Your task to perform on an android device: Search for Italian restaurants on Maps Image 0: 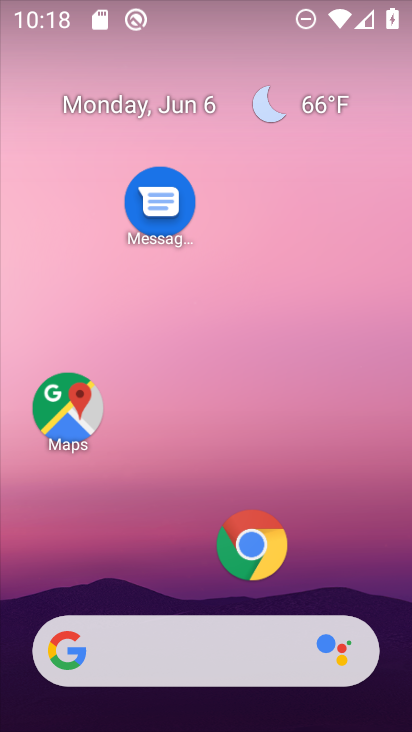
Step 0: drag from (140, 556) to (208, 120)
Your task to perform on an android device: Search for Italian restaurants on Maps Image 1: 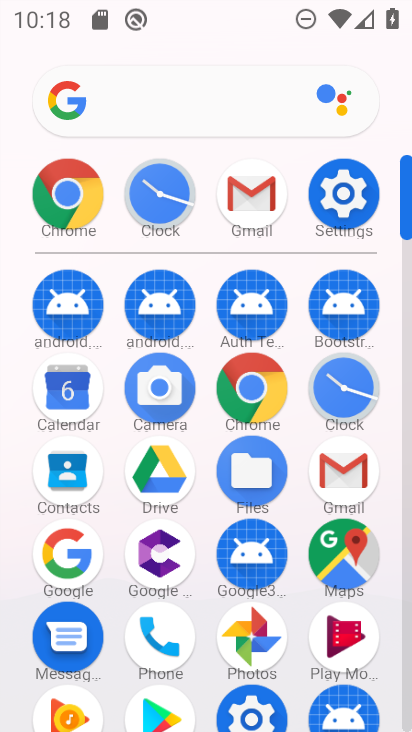
Step 1: click (331, 549)
Your task to perform on an android device: Search for Italian restaurants on Maps Image 2: 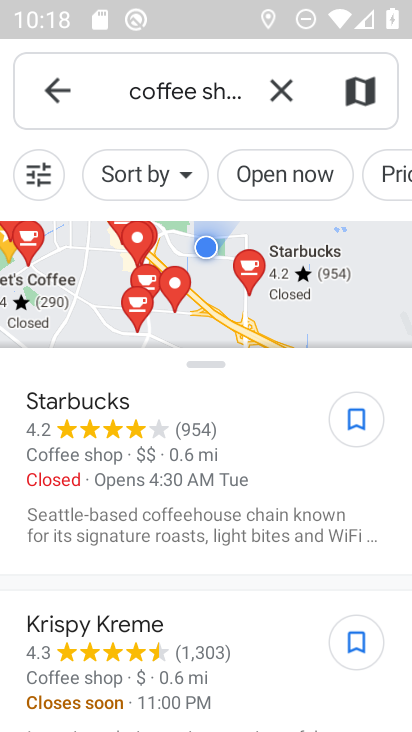
Step 2: click (278, 95)
Your task to perform on an android device: Search for Italian restaurants on Maps Image 3: 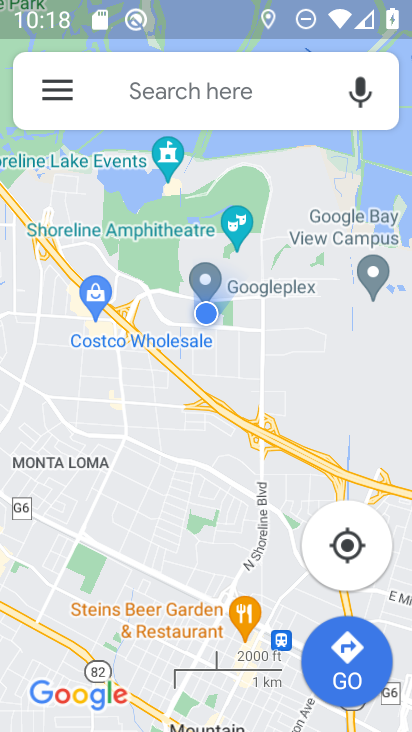
Step 3: click (188, 100)
Your task to perform on an android device: Search for Italian restaurants on Maps Image 4: 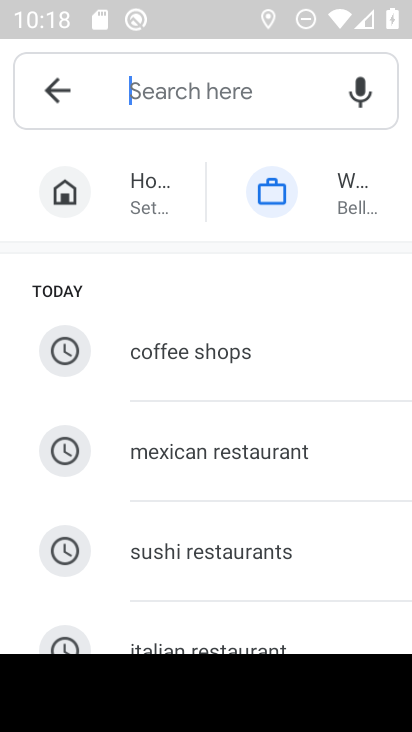
Step 4: type "Italian restaurants Italian restaurants "
Your task to perform on an android device: Search for Italian restaurants on Maps Image 5: 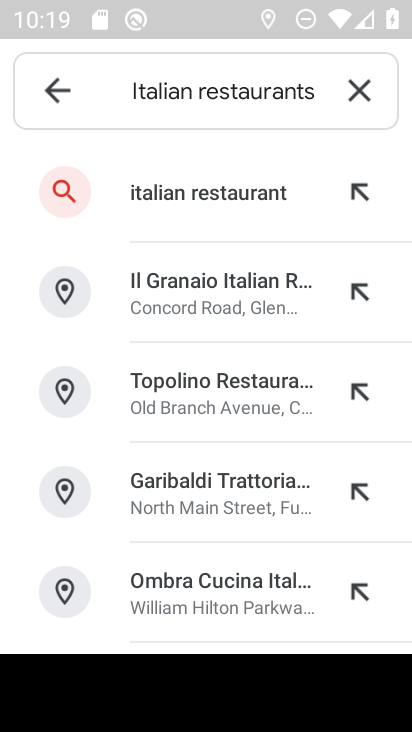
Step 5: click (254, 226)
Your task to perform on an android device: Search for Italian restaurants on Maps Image 6: 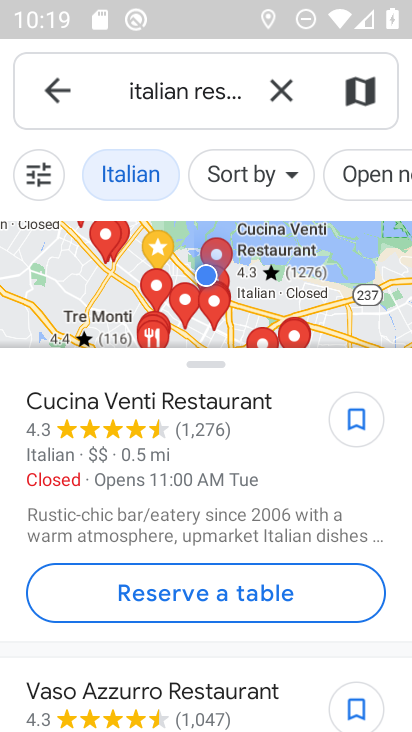
Step 6: task complete